Your task to perform on an android device: Open the calendar app, open the side menu, and click the "Day" option Image 0: 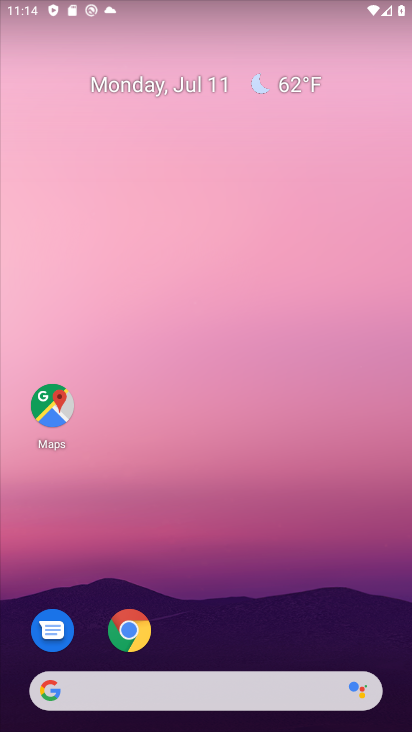
Step 0: drag from (207, 690) to (322, 2)
Your task to perform on an android device: Open the calendar app, open the side menu, and click the "Day" option Image 1: 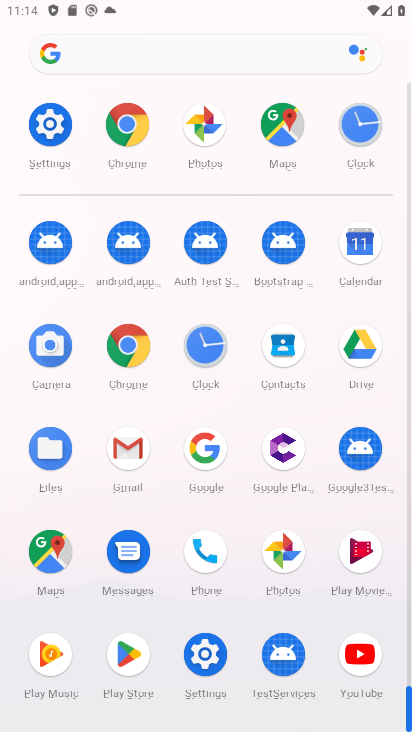
Step 1: click (361, 249)
Your task to perform on an android device: Open the calendar app, open the side menu, and click the "Day" option Image 2: 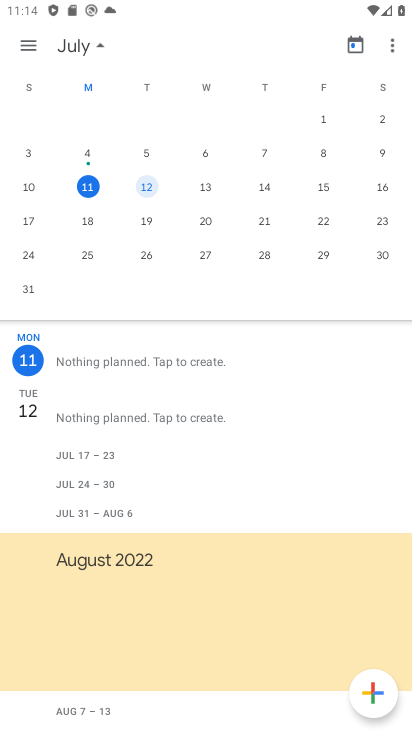
Step 2: click (33, 43)
Your task to perform on an android device: Open the calendar app, open the side menu, and click the "Day" option Image 3: 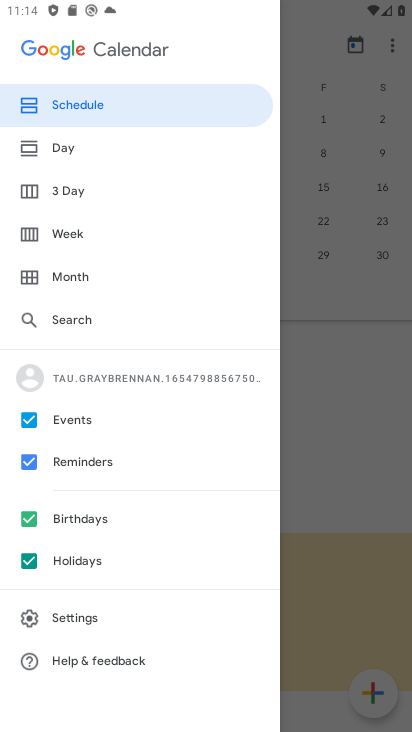
Step 3: click (73, 146)
Your task to perform on an android device: Open the calendar app, open the side menu, and click the "Day" option Image 4: 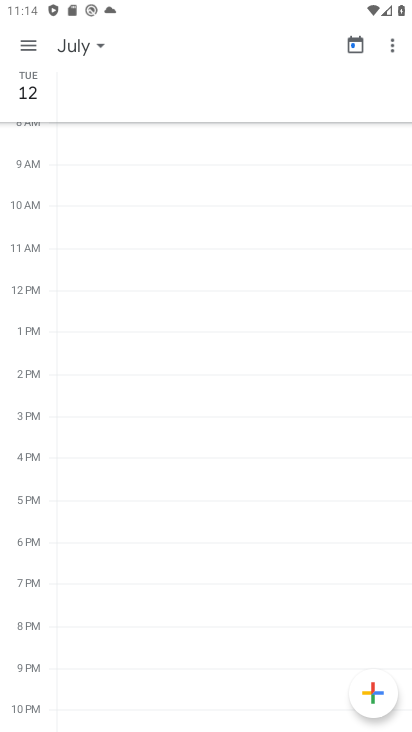
Step 4: task complete